Your task to perform on an android device: install app "Grab" Image 0: 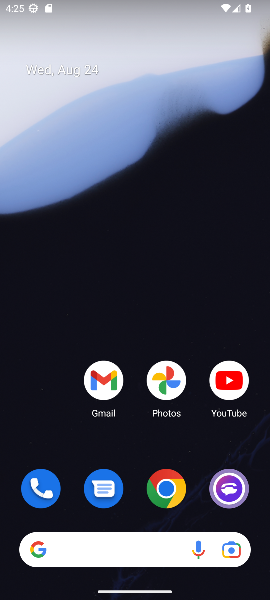
Step 0: drag from (144, 508) to (98, 172)
Your task to perform on an android device: install app "Grab" Image 1: 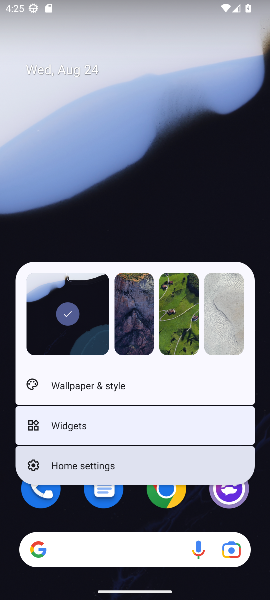
Step 1: click (136, 156)
Your task to perform on an android device: install app "Grab" Image 2: 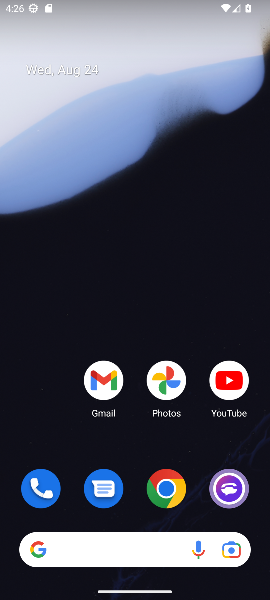
Step 2: drag from (127, 413) to (127, 156)
Your task to perform on an android device: install app "Grab" Image 3: 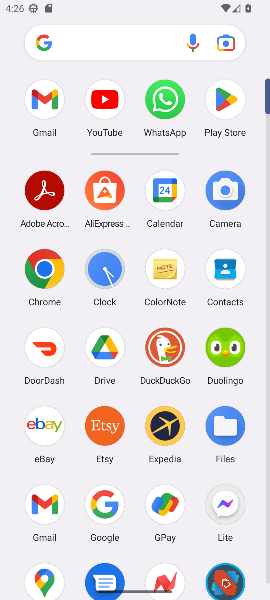
Step 3: click (208, 99)
Your task to perform on an android device: install app "Grab" Image 4: 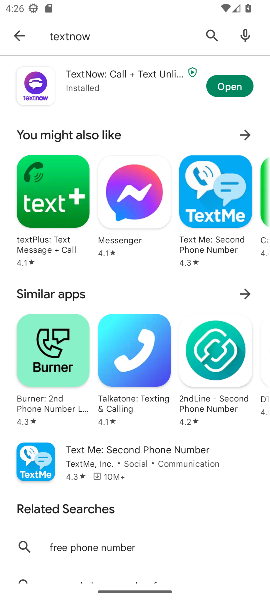
Step 4: click (214, 29)
Your task to perform on an android device: install app "Grab" Image 5: 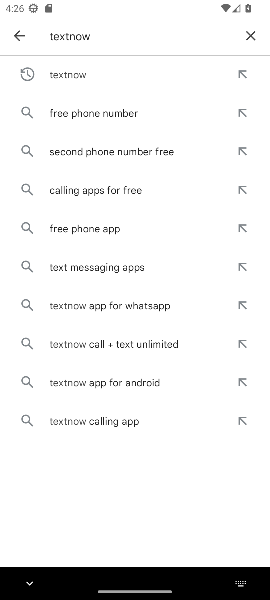
Step 5: click (240, 37)
Your task to perform on an android device: install app "Grab" Image 6: 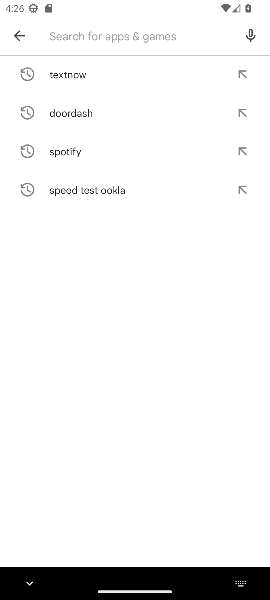
Step 6: type ""
Your task to perform on an android device: install app "Grab" Image 7: 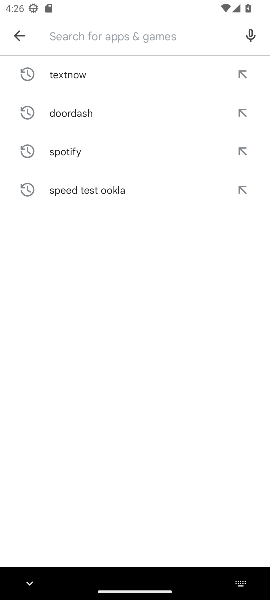
Step 7: type "grab"
Your task to perform on an android device: install app "Grab" Image 8: 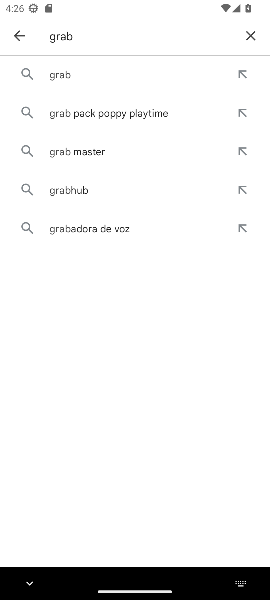
Step 8: click (54, 63)
Your task to perform on an android device: install app "Grab" Image 9: 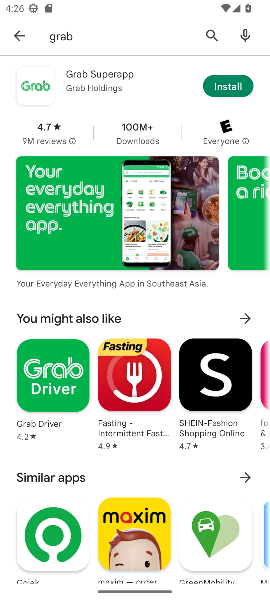
Step 9: click (229, 93)
Your task to perform on an android device: install app "Grab" Image 10: 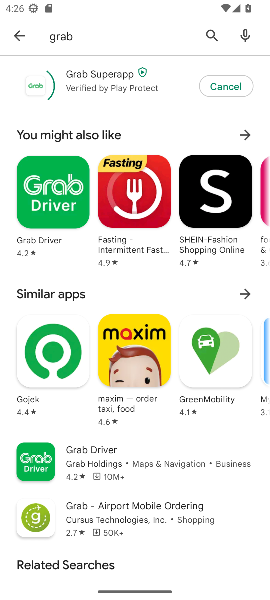
Step 10: task complete